Your task to perform on an android device: Look up the best rated wireless earbuds on Ali Express Image 0: 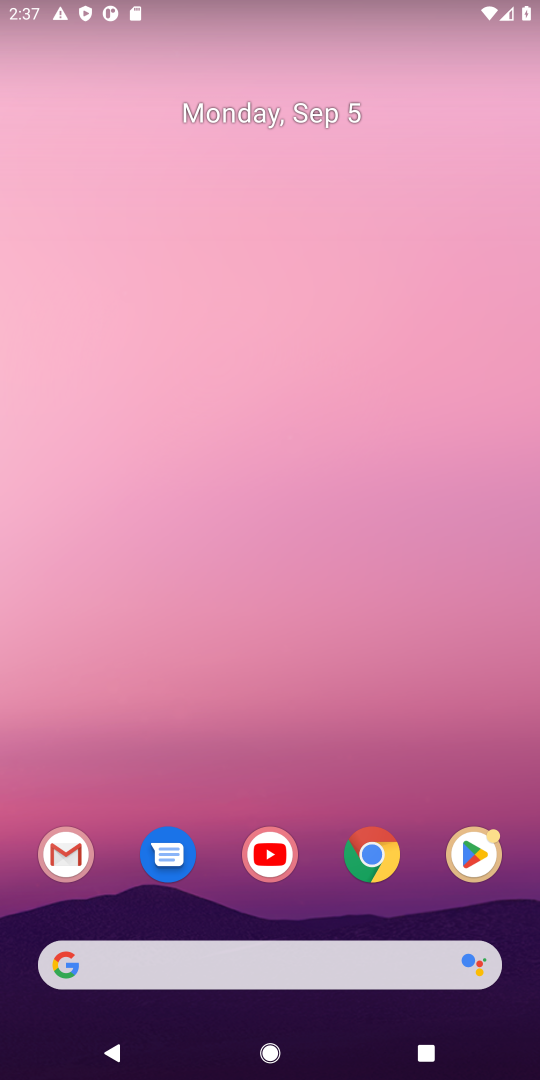
Step 0: click (385, 955)
Your task to perform on an android device: Look up the best rated wireless earbuds on Ali Express Image 1: 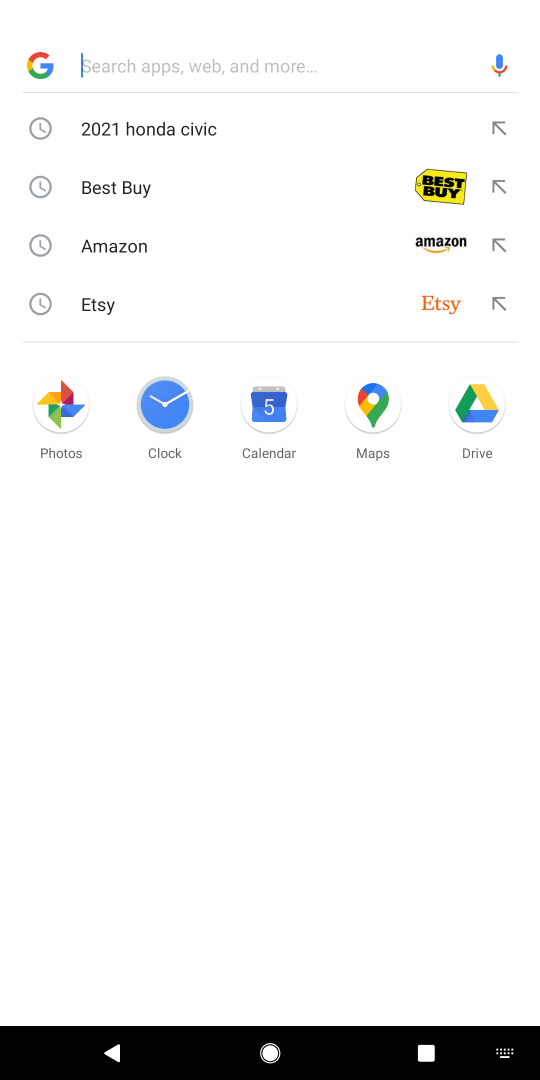
Step 1: type "aliexpress"
Your task to perform on an android device: Look up the best rated wireless earbuds on Ali Express Image 2: 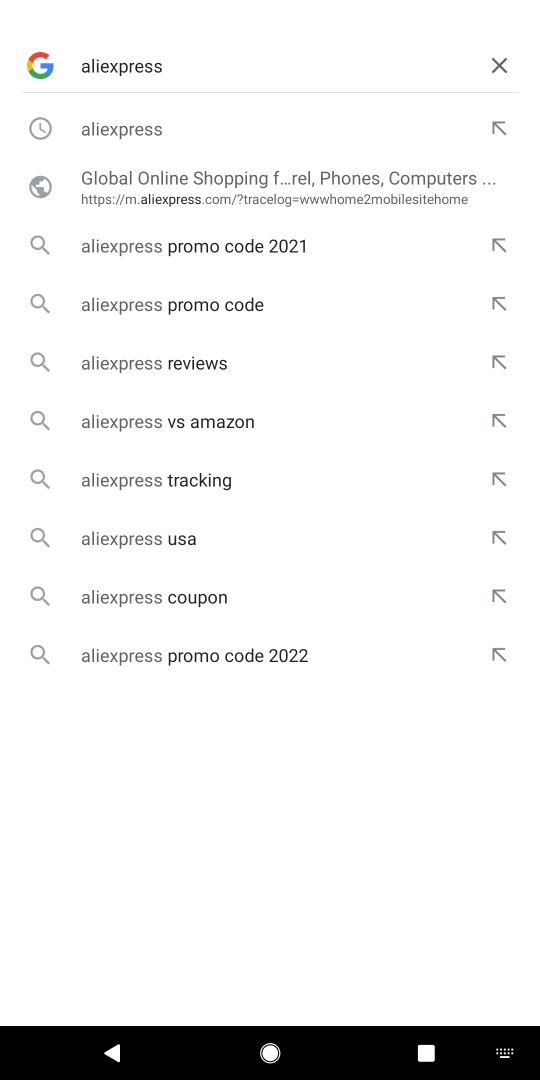
Step 2: press enter
Your task to perform on an android device: Look up the best rated wireless earbuds on Ali Express Image 3: 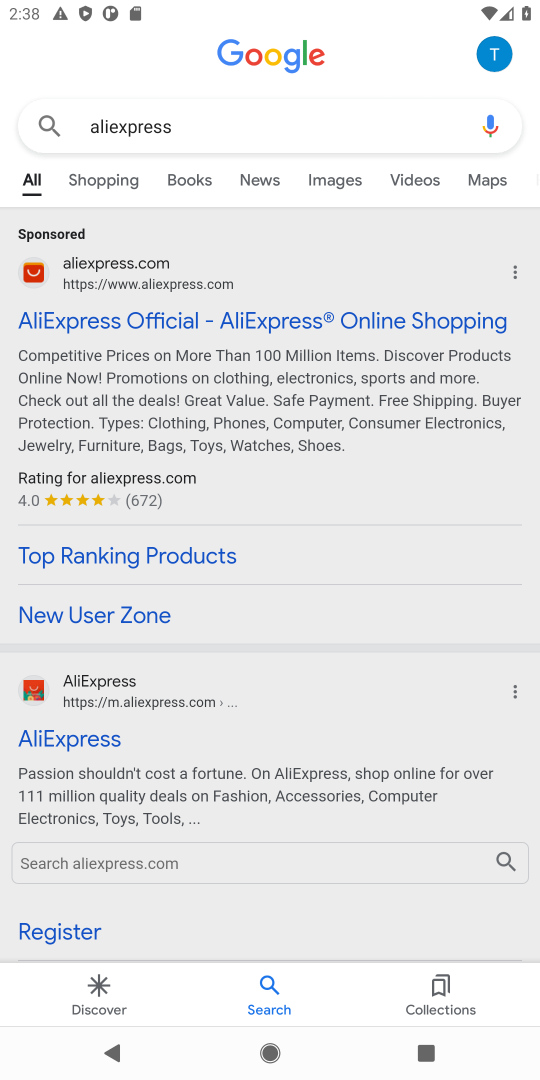
Step 3: click (264, 325)
Your task to perform on an android device: Look up the best rated wireless earbuds on Ali Express Image 4: 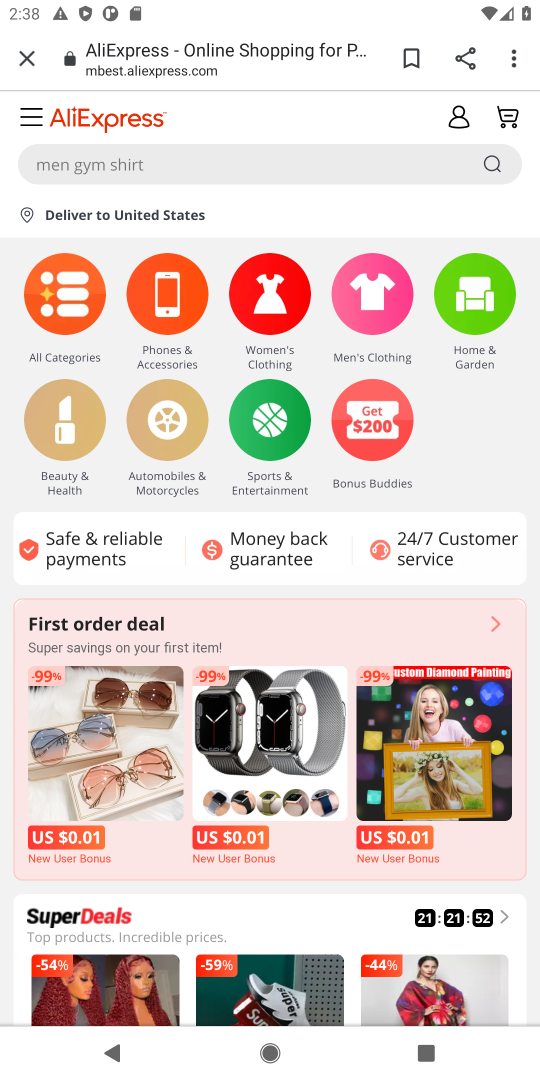
Step 4: click (102, 163)
Your task to perform on an android device: Look up the best rated wireless earbuds on Ali Express Image 5: 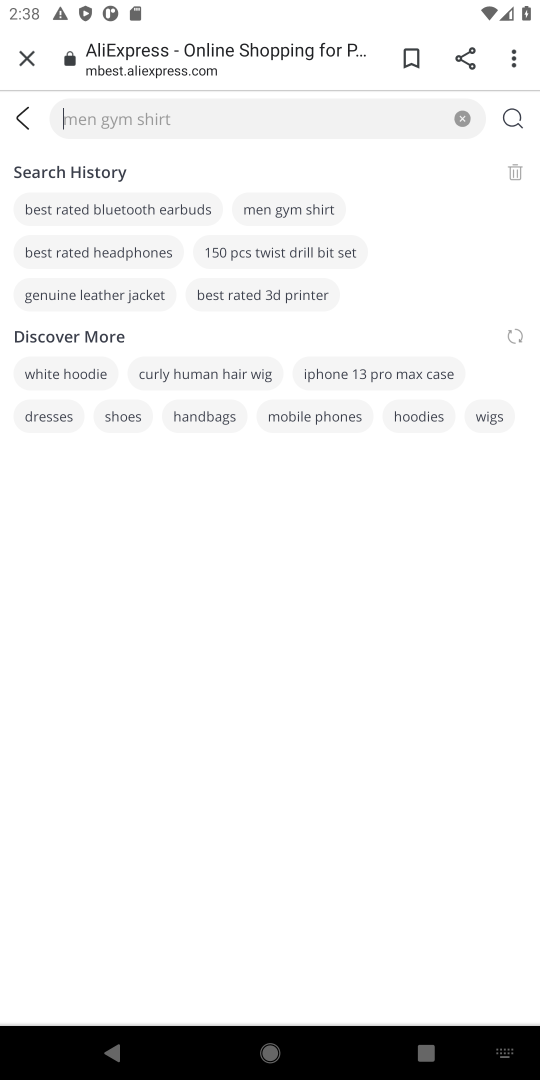
Step 5: type "best rated wirless earbuds"
Your task to perform on an android device: Look up the best rated wireless earbuds on Ali Express Image 6: 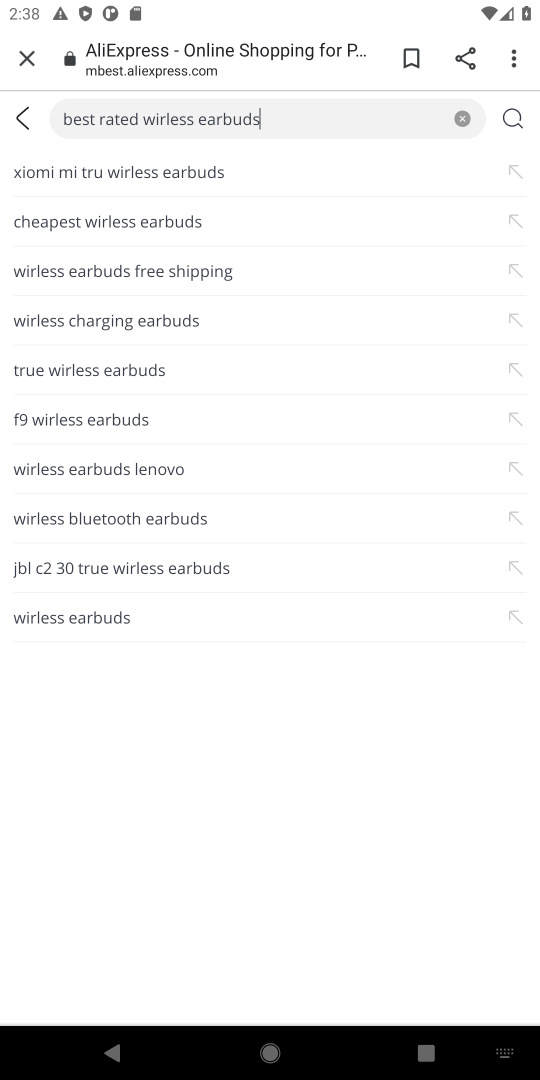
Step 6: click (519, 119)
Your task to perform on an android device: Look up the best rated wireless earbuds on Ali Express Image 7: 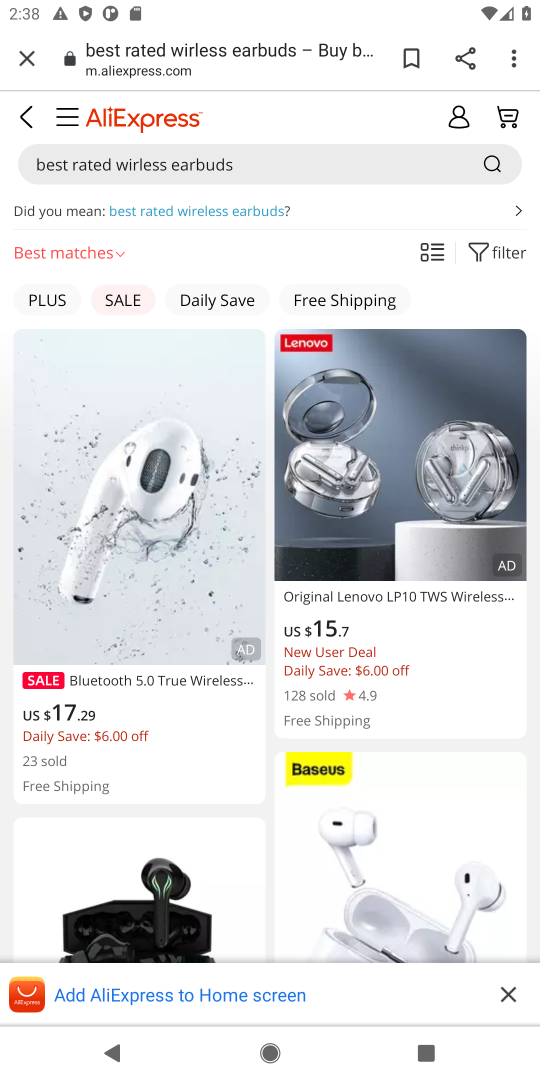
Step 7: task complete